Your task to perform on an android device: What is the recent news? Image 0: 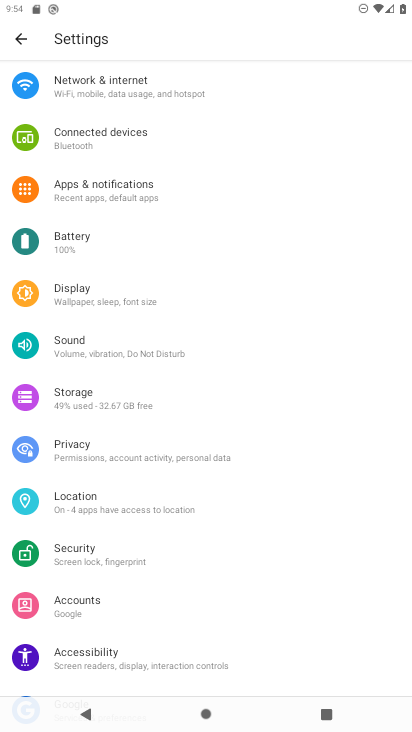
Step 0: press home button
Your task to perform on an android device: What is the recent news? Image 1: 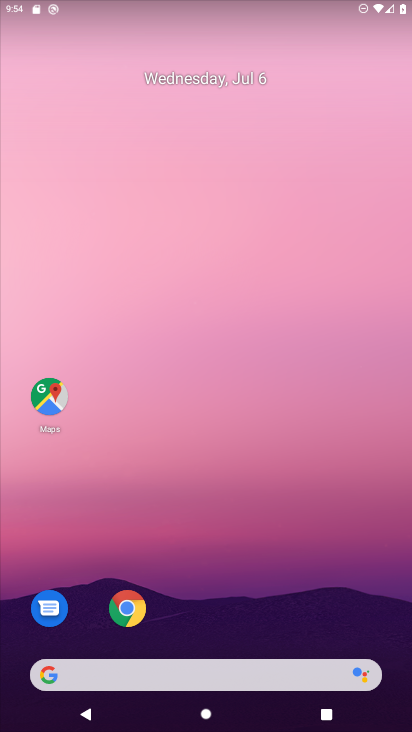
Step 1: drag from (156, 658) to (288, 160)
Your task to perform on an android device: What is the recent news? Image 2: 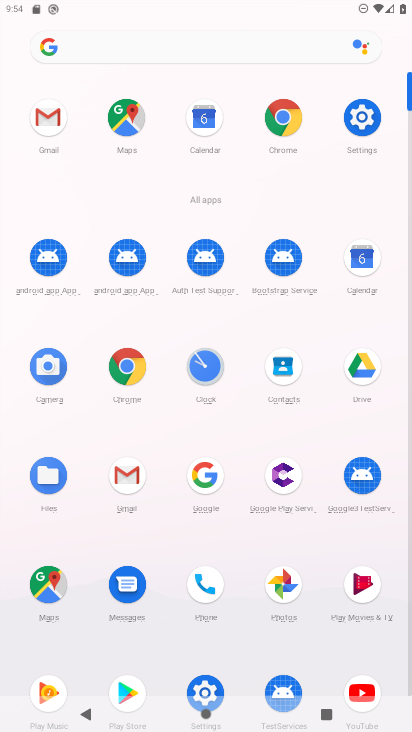
Step 2: click (216, 481)
Your task to perform on an android device: What is the recent news? Image 3: 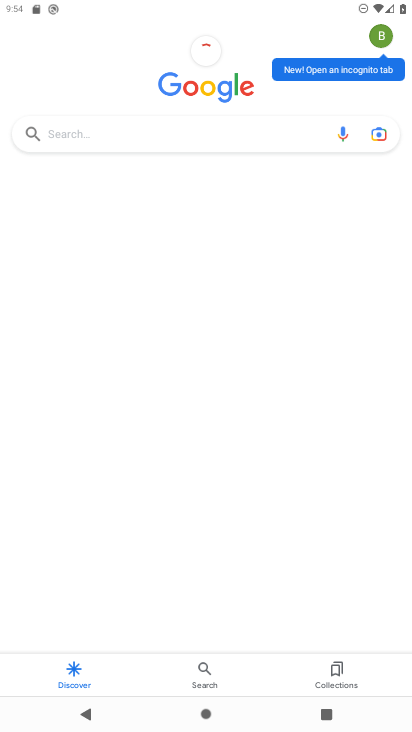
Step 3: click (192, 129)
Your task to perform on an android device: What is the recent news? Image 4: 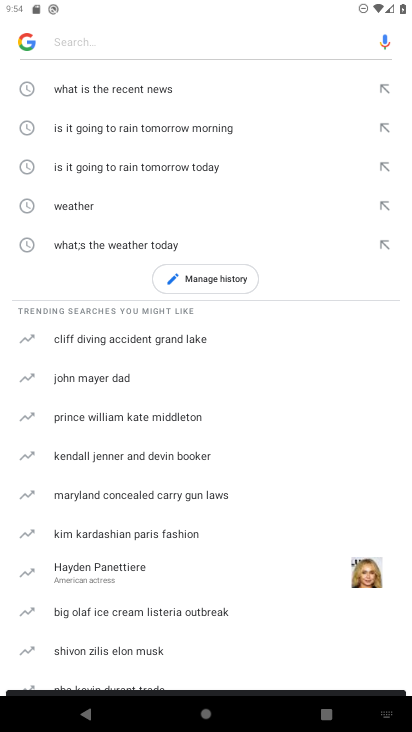
Step 4: click (72, 96)
Your task to perform on an android device: What is the recent news? Image 5: 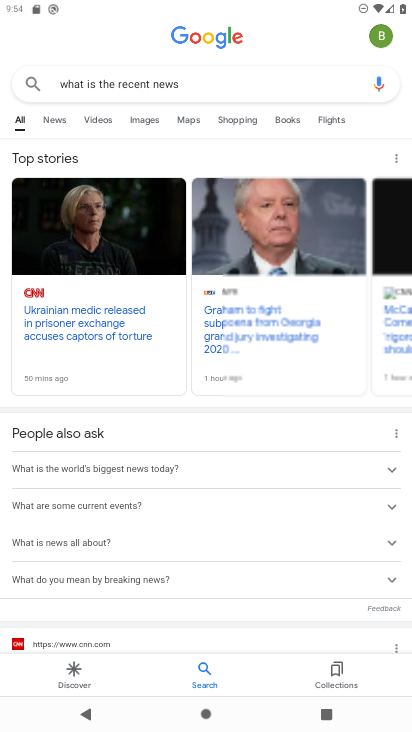
Step 5: task complete